Your task to perform on an android device: Go to Google Image 0: 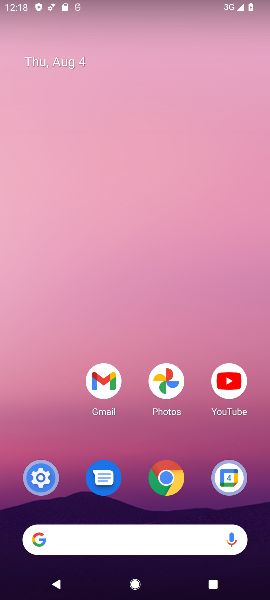
Step 0: drag from (128, 420) to (212, 28)
Your task to perform on an android device: Go to Google Image 1: 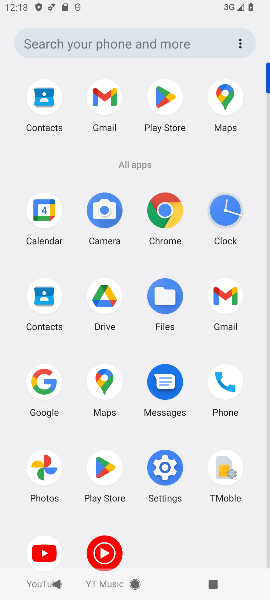
Step 1: click (40, 373)
Your task to perform on an android device: Go to Google Image 2: 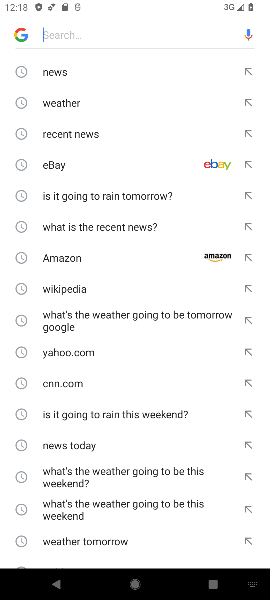
Step 2: task complete